Your task to perform on an android device: see tabs open on other devices in the chrome app Image 0: 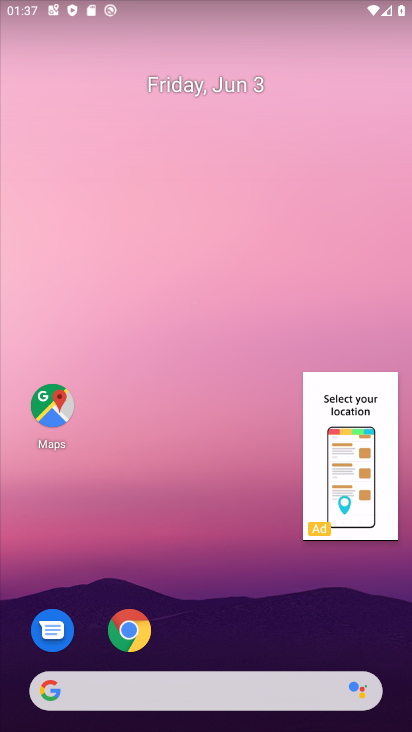
Step 0: click (370, 423)
Your task to perform on an android device: see tabs open on other devices in the chrome app Image 1: 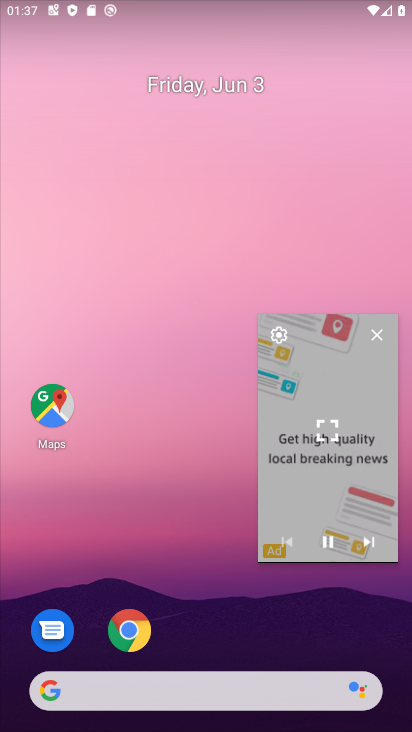
Step 1: click (377, 334)
Your task to perform on an android device: see tabs open on other devices in the chrome app Image 2: 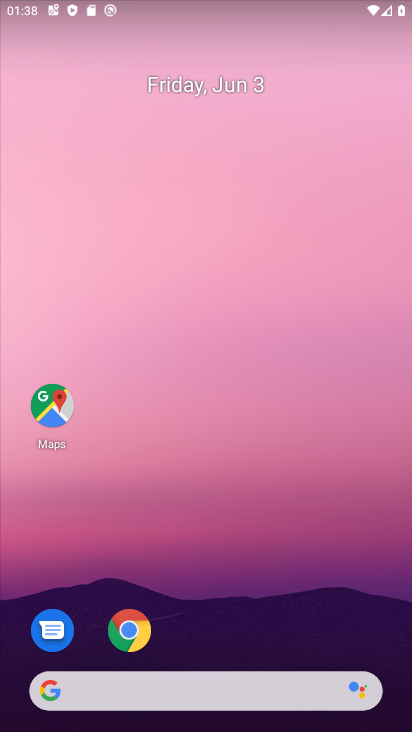
Step 2: click (135, 625)
Your task to perform on an android device: see tabs open on other devices in the chrome app Image 3: 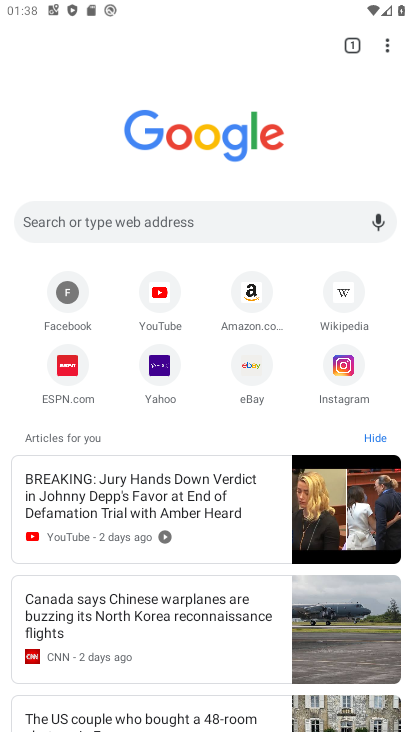
Step 3: click (389, 52)
Your task to perform on an android device: see tabs open on other devices in the chrome app Image 4: 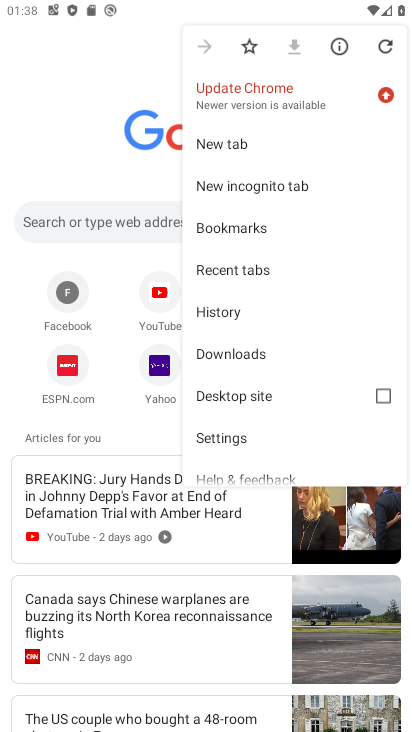
Step 4: click (228, 271)
Your task to perform on an android device: see tabs open on other devices in the chrome app Image 5: 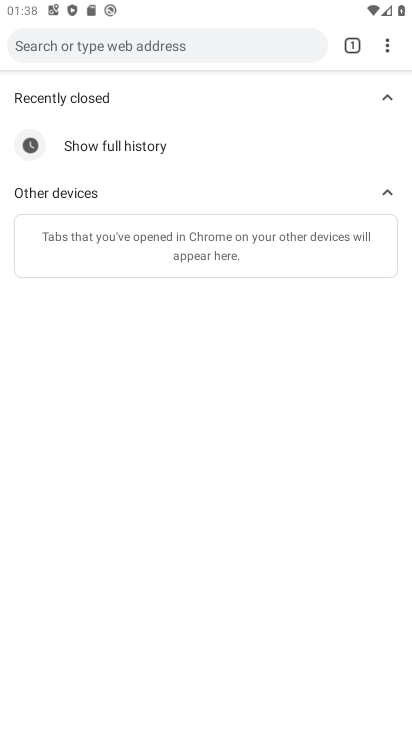
Step 5: task complete